Your task to perform on an android device: Go to calendar. Show me events next week Image 0: 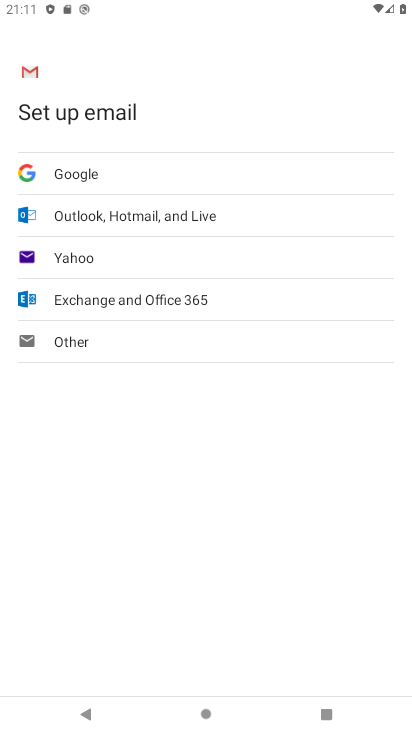
Step 0: press back button
Your task to perform on an android device: Go to calendar. Show me events next week Image 1: 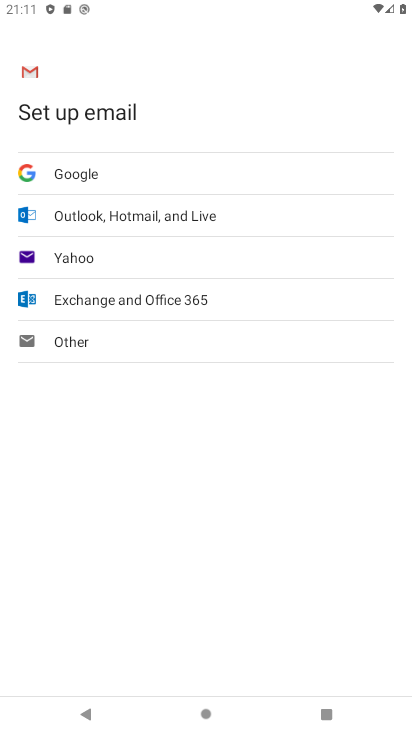
Step 1: press back button
Your task to perform on an android device: Go to calendar. Show me events next week Image 2: 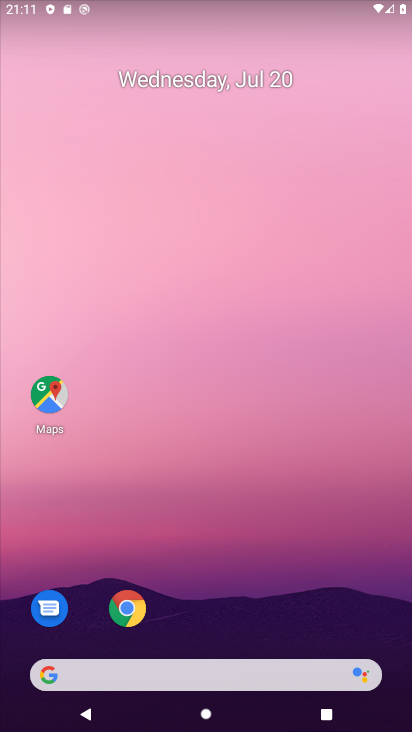
Step 2: drag from (202, 539) to (108, 64)
Your task to perform on an android device: Go to calendar. Show me events next week Image 3: 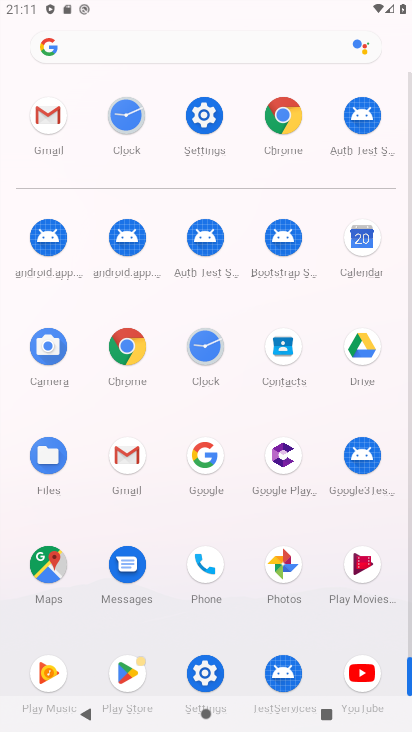
Step 3: click (361, 236)
Your task to perform on an android device: Go to calendar. Show me events next week Image 4: 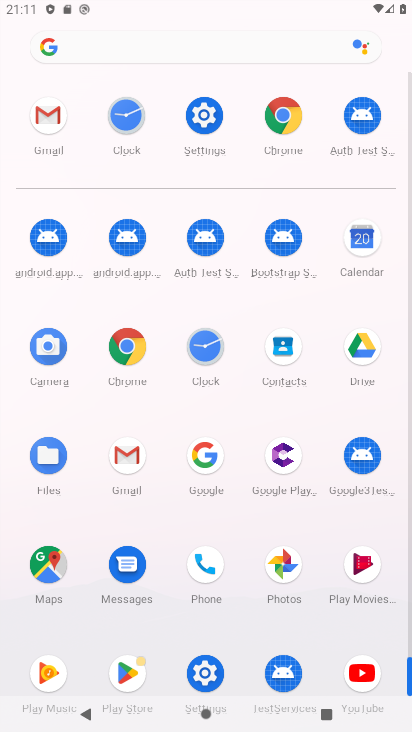
Step 4: click (359, 239)
Your task to perform on an android device: Go to calendar. Show me events next week Image 5: 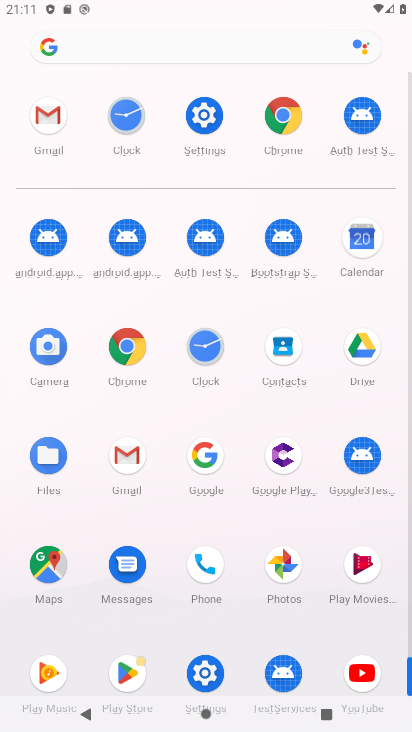
Step 5: click (358, 241)
Your task to perform on an android device: Go to calendar. Show me events next week Image 6: 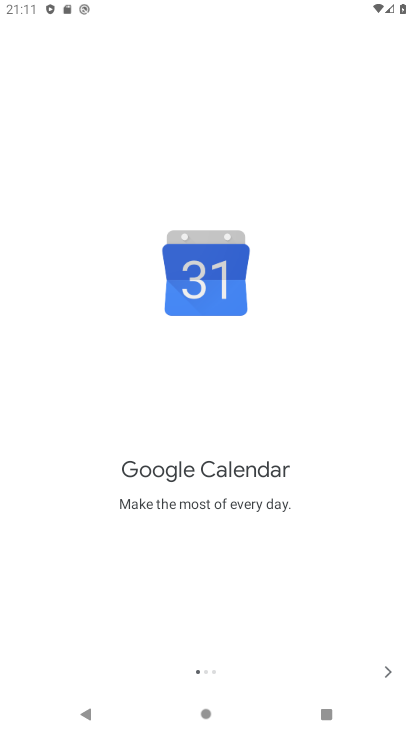
Step 6: click (379, 663)
Your task to perform on an android device: Go to calendar. Show me events next week Image 7: 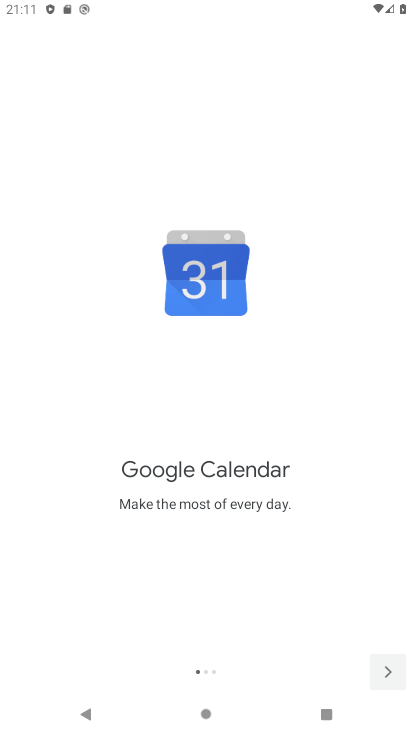
Step 7: click (379, 663)
Your task to perform on an android device: Go to calendar. Show me events next week Image 8: 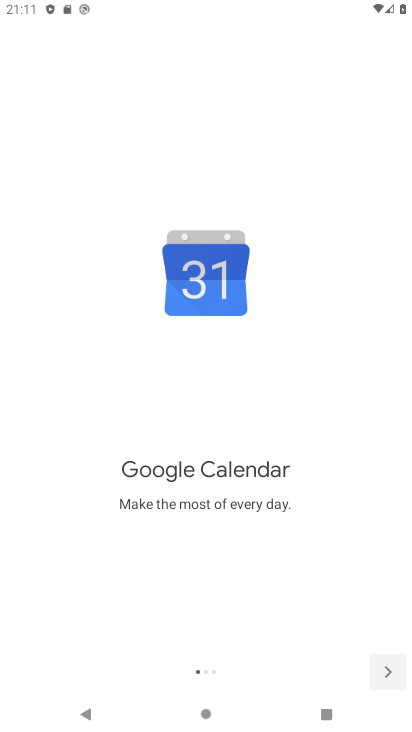
Step 8: click (379, 663)
Your task to perform on an android device: Go to calendar. Show me events next week Image 9: 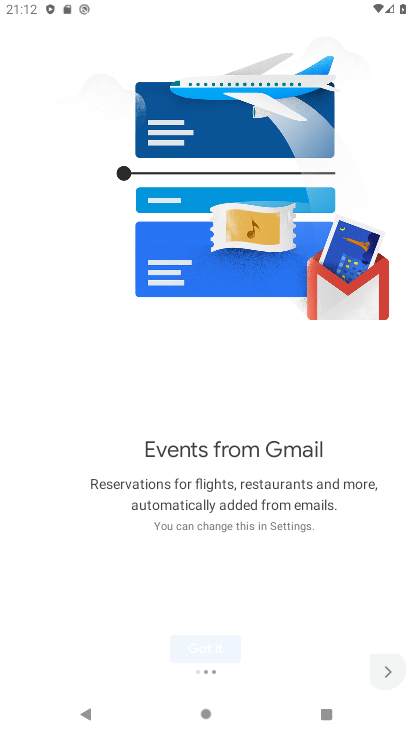
Step 9: click (381, 663)
Your task to perform on an android device: Go to calendar. Show me events next week Image 10: 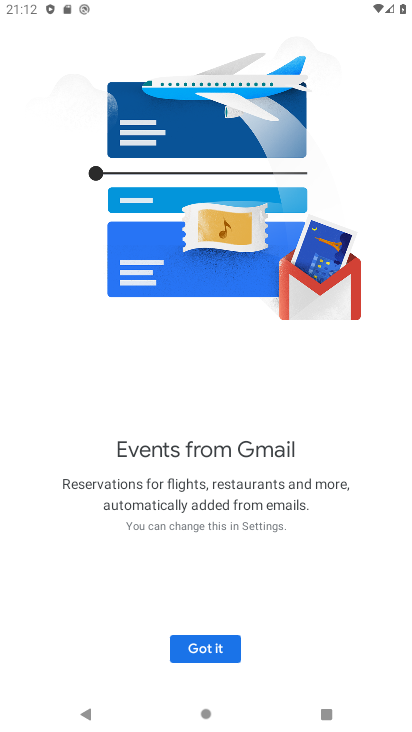
Step 10: click (209, 646)
Your task to perform on an android device: Go to calendar. Show me events next week Image 11: 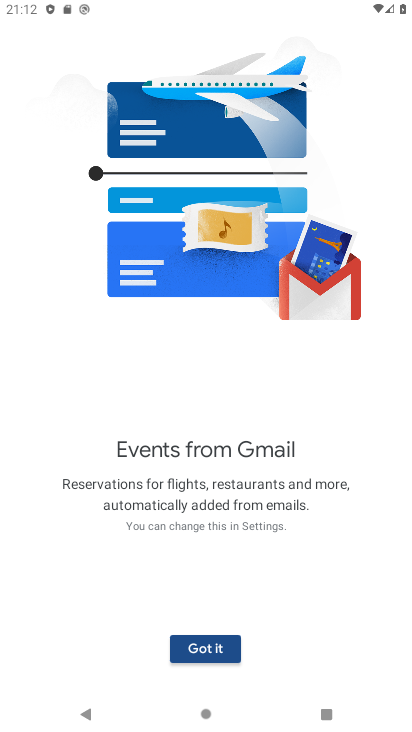
Step 11: click (208, 643)
Your task to perform on an android device: Go to calendar. Show me events next week Image 12: 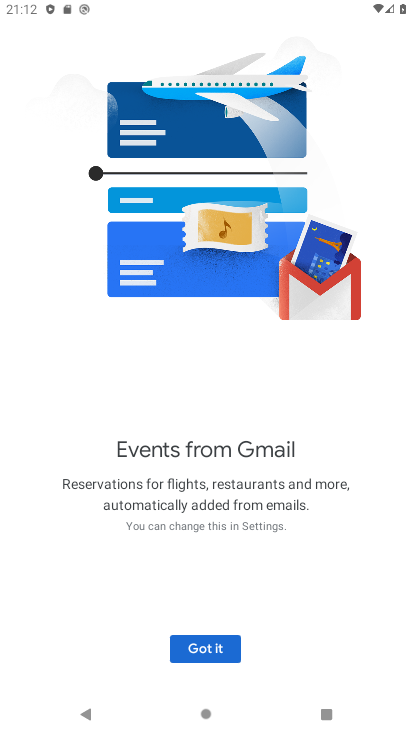
Step 12: click (208, 643)
Your task to perform on an android device: Go to calendar. Show me events next week Image 13: 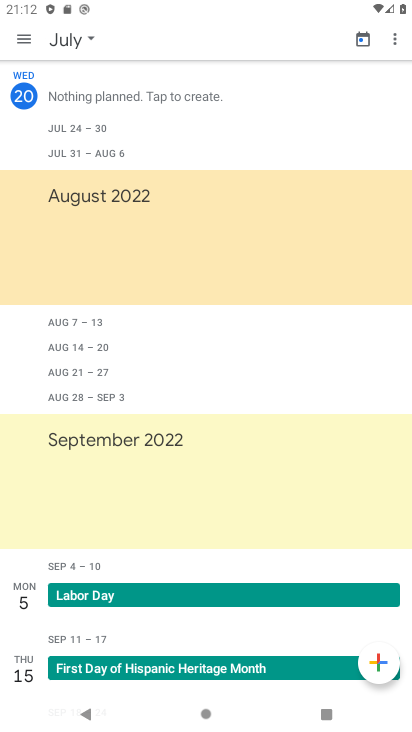
Step 13: click (94, 33)
Your task to perform on an android device: Go to calendar. Show me events next week Image 14: 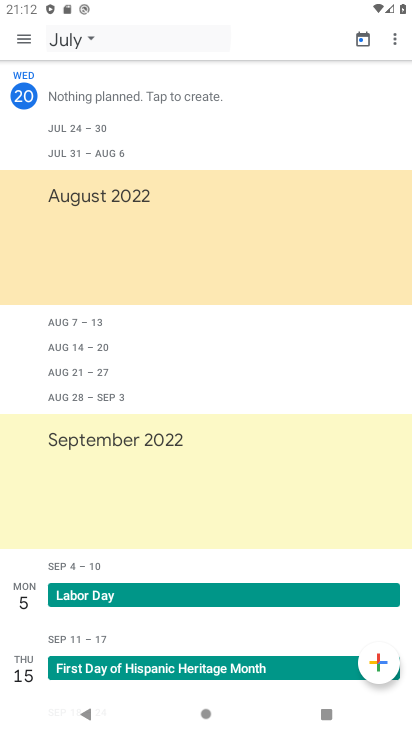
Step 14: click (94, 33)
Your task to perform on an android device: Go to calendar. Show me events next week Image 15: 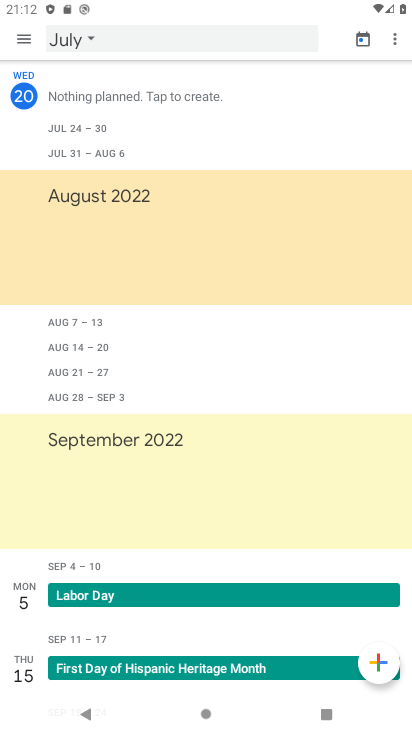
Step 15: click (94, 33)
Your task to perform on an android device: Go to calendar. Show me events next week Image 16: 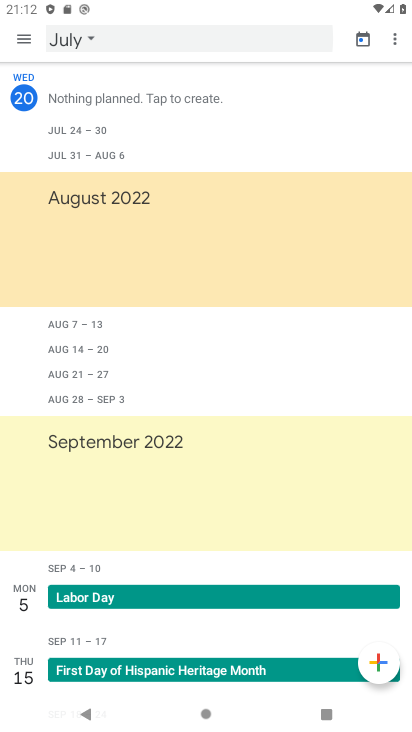
Step 16: click (95, 40)
Your task to perform on an android device: Go to calendar. Show me events next week Image 17: 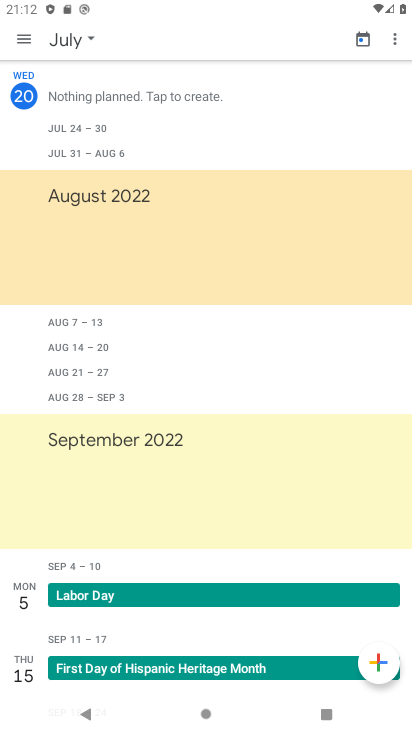
Step 17: click (93, 32)
Your task to perform on an android device: Go to calendar. Show me events next week Image 18: 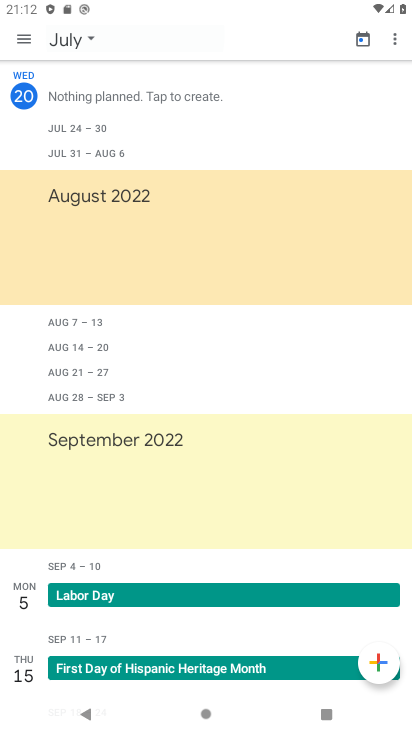
Step 18: click (93, 32)
Your task to perform on an android device: Go to calendar. Show me events next week Image 19: 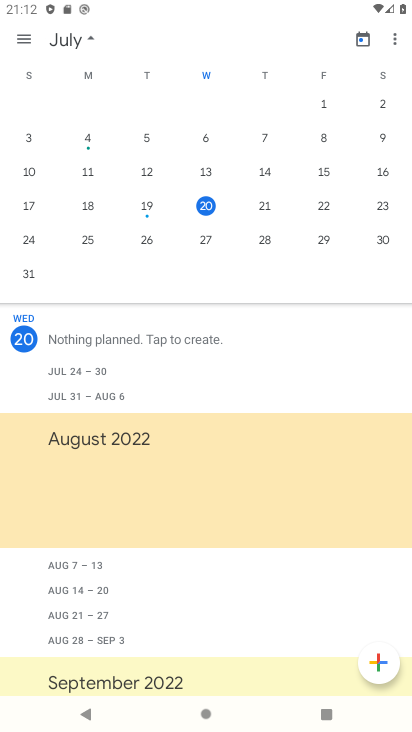
Step 19: click (326, 236)
Your task to perform on an android device: Go to calendar. Show me events next week Image 20: 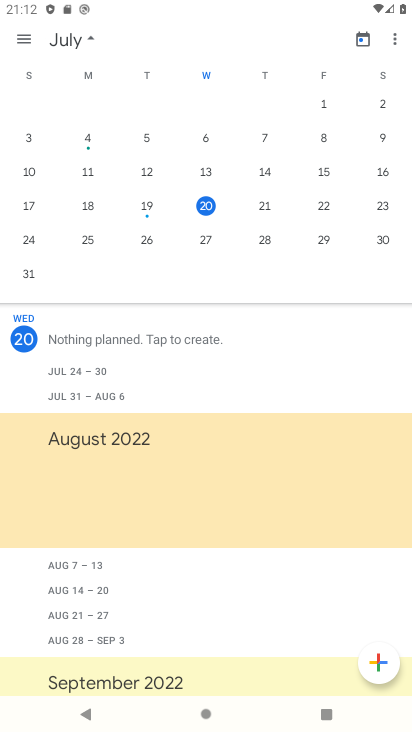
Step 20: click (326, 236)
Your task to perform on an android device: Go to calendar. Show me events next week Image 21: 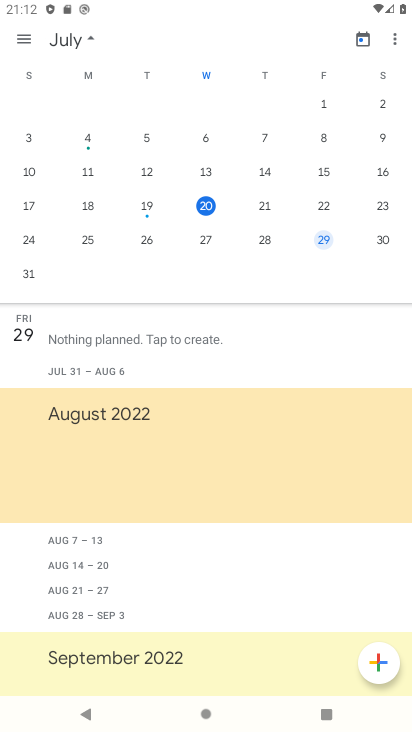
Step 21: click (325, 238)
Your task to perform on an android device: Go to calendar. Show me events next week Image 22: 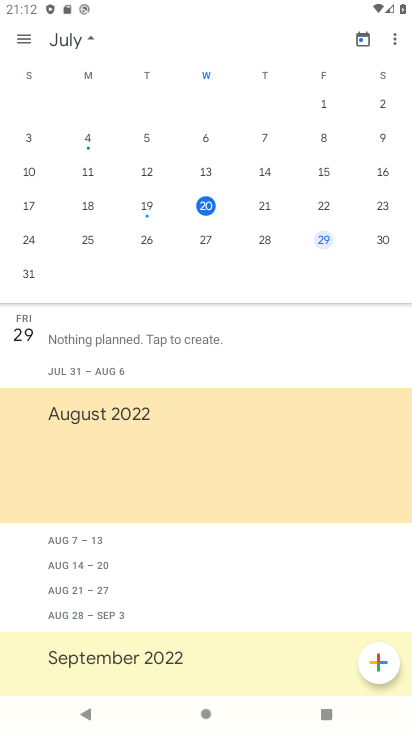
Step 22: task complete